Your task to perform on an android device: turn off notifications settings in the gmail app Image 0: 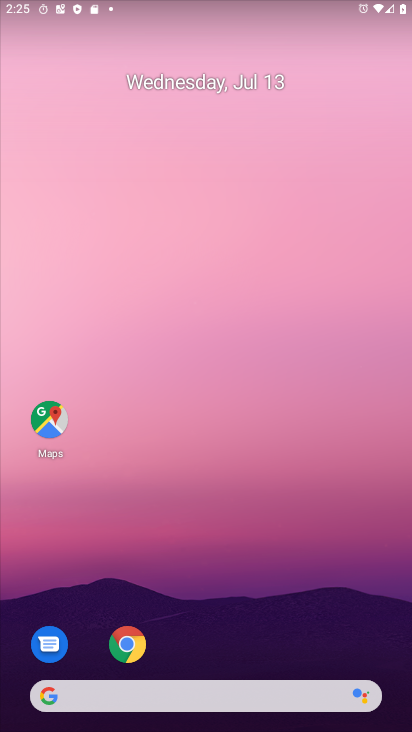
Step 0: drag from (207, 597) to (286, 33)
Your task to perform on an android device: turn off notifications settings in the gmail app Image 1: 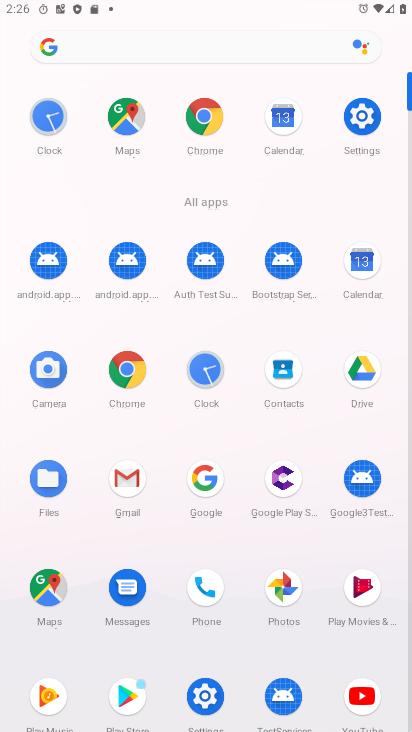
Step 1: click (132, 472)
Your task to perform on an android device: turn off notifications settings in the gmail app Image 2: 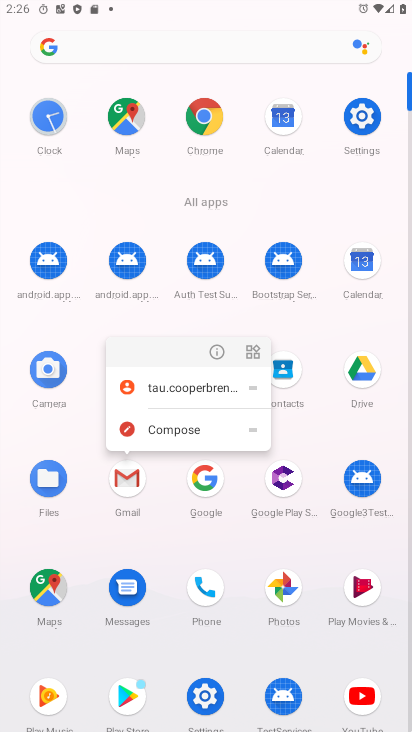
Step 2: click (223, 349)
Your task to perform on an android device: turn off notifications settings in the gmail app Image 3: 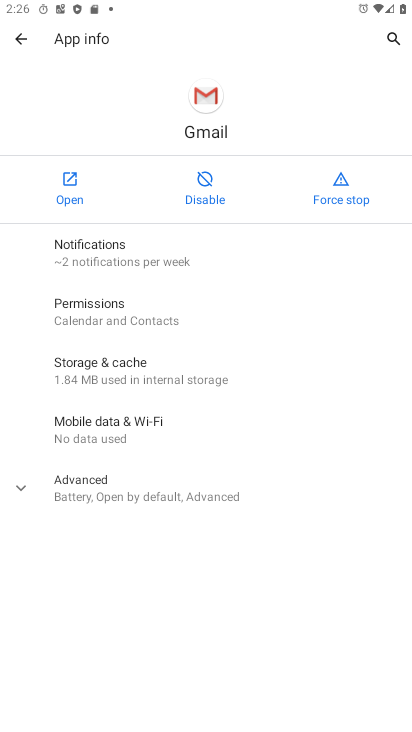
Step 3: click (121, 236)
Your task to perform on an android device: turn off notifications settings in the gmail app Image 4: 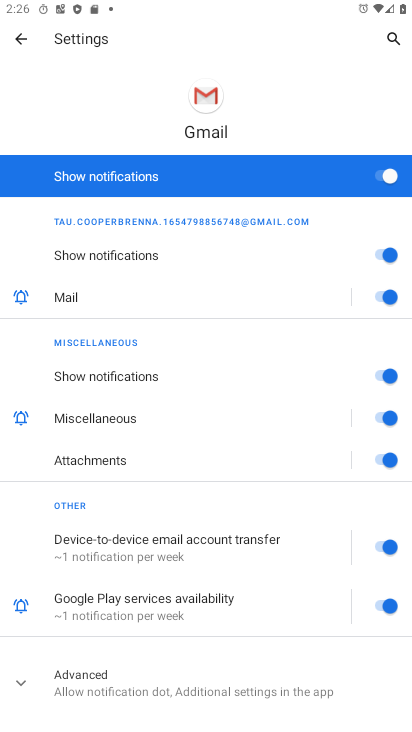
Step 4: click (385, 176)
Your task to perform on an android device: turn off notifications settings in the gmail app Image 5: 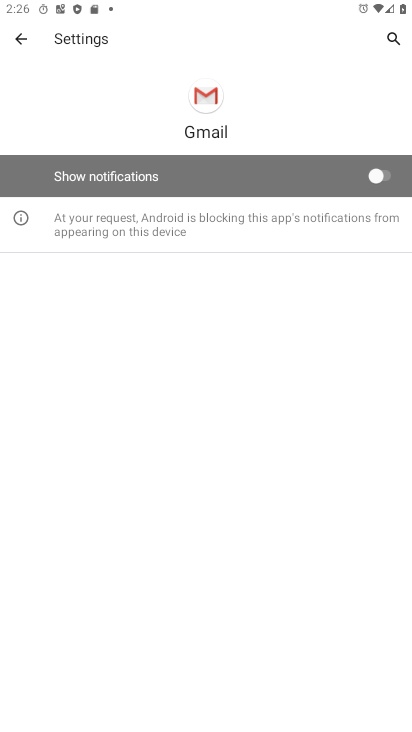
Step 5: task complete